Your task to perform on an android device: Go to Reddit.com Image 0: 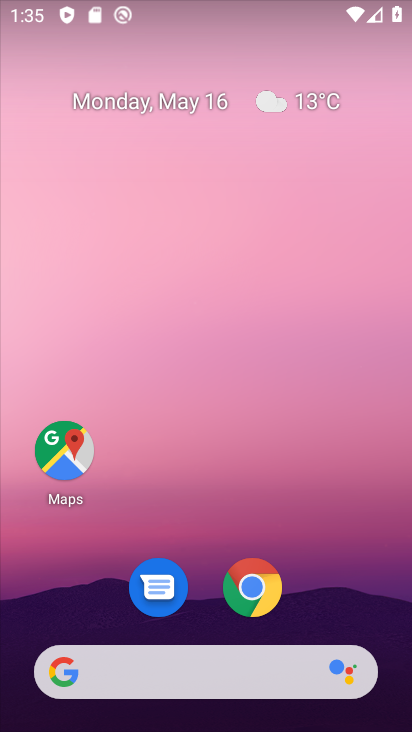
Step 0: drag from (218, 614) to (219, 418)
Your task to perform on an android device: Go to Reddit.com Image 1: 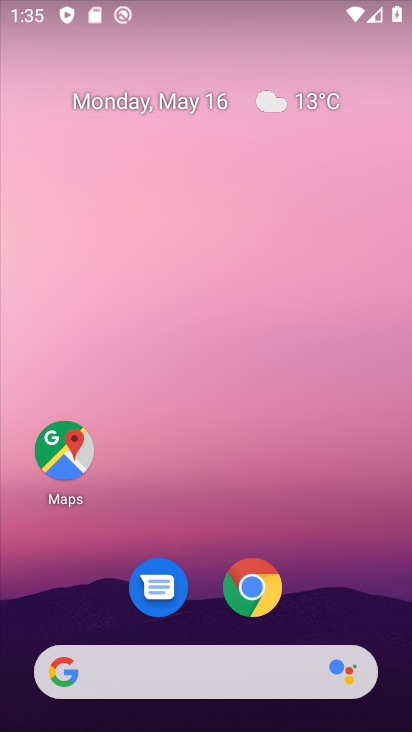
Step 1: drag from (217, 627) to (186, 260)
Your task to perform on an android device: Go to Reddit.com Image 2: 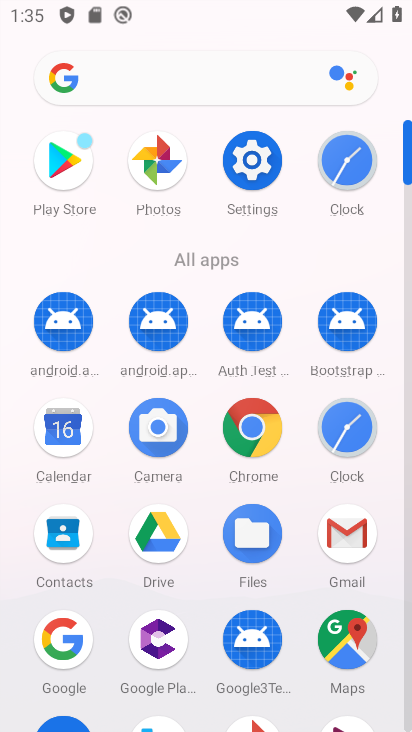
Step 2: click (57, 617)
Your task to perform on an android device: Go to Reddit.com Image 3: 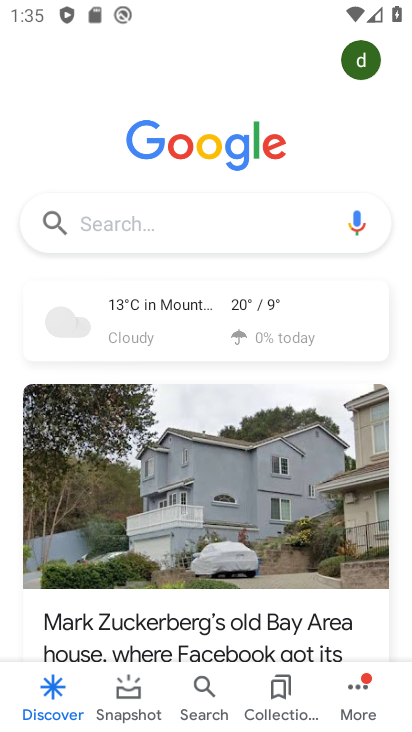
Step 3: click (119, 227)
Your task to perform on an android device: Go to Reddit.com Image 4: 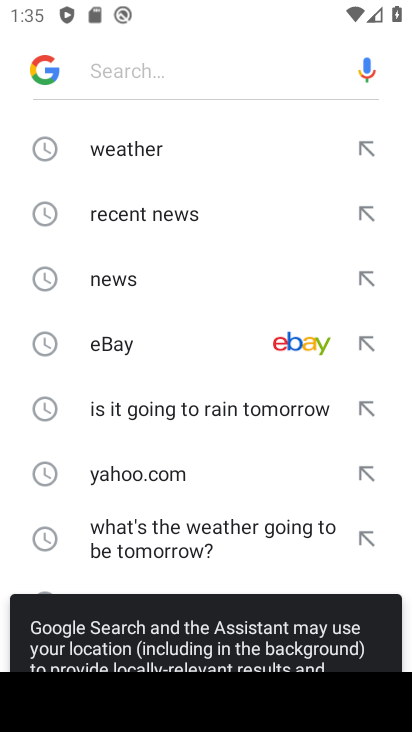
Step 4: drag from (161, 568) to (163, 204)
Your task to perform on an android device: Go to Reddit.com Image 5: 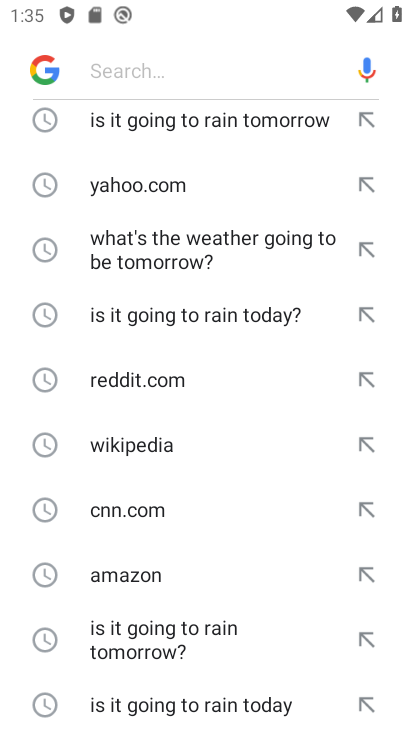
Step 5: click (152, 377)
Your task to perform on an android device: Go to Reddit.com Image 6: 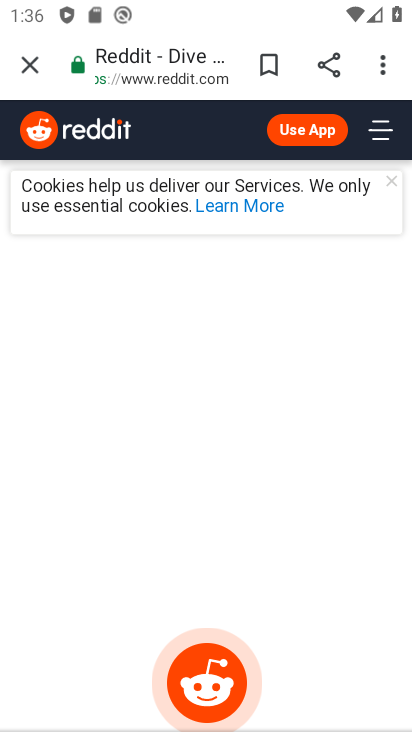
Step 6: task complete